Your task to perform on an android device: toggle show notifications on the lock screen Image 0: 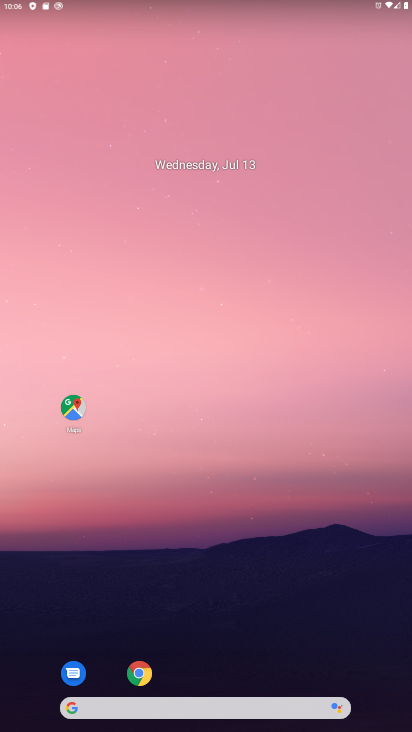
Step 0: drag from (161, 693) to (224, 187)
Your task to perform on an android device: toggle show notifications on the lock screen Image 1: 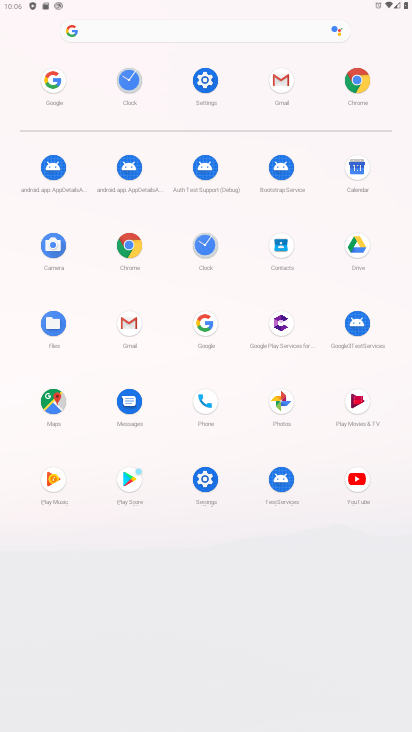
Step 1: click (208, 82)
Your task to perform on an android device: toggle show notifications on the lock screen Image 2: 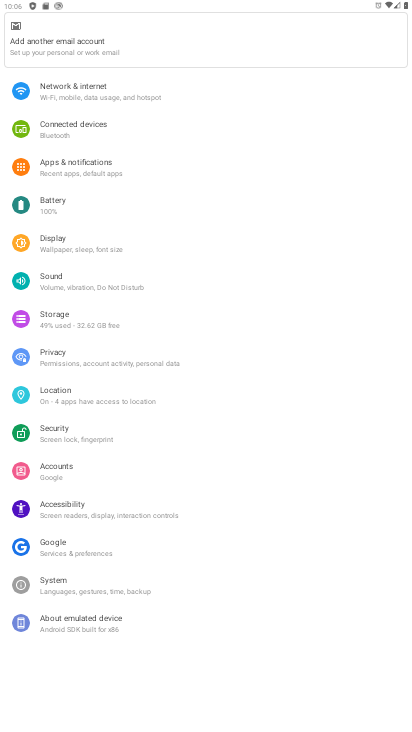
Step 2: click (49, 354)
Your task to perform on an android device: toggle show notifications on the lock screen Image 3: 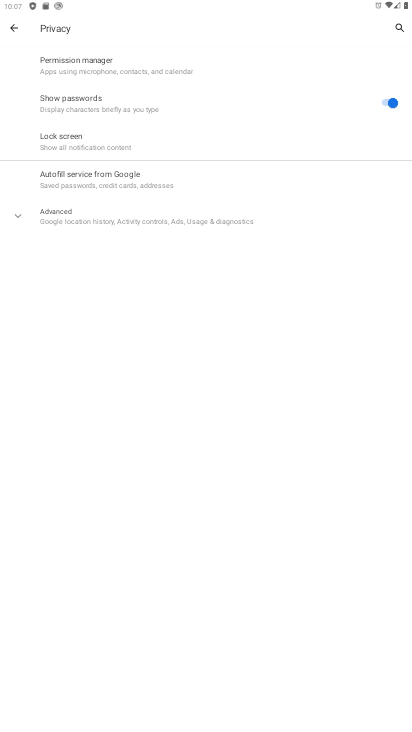
Step 3: click (58, 149)
Your task to perform on an android device: toggle show notifications on the lock screen Image 4: 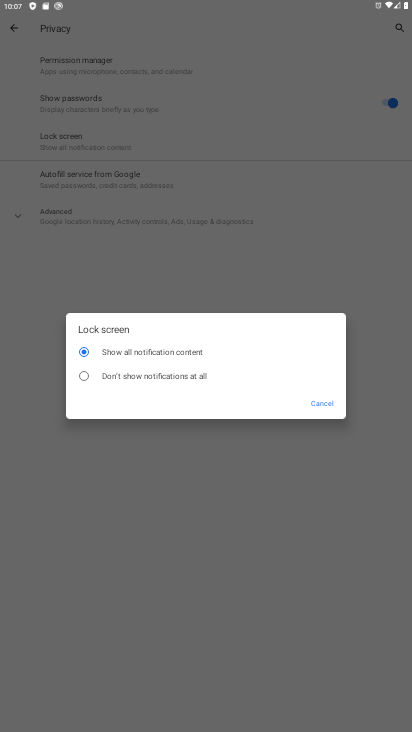
Step 4: click (111, 379)
Your task to perform on an android device: toggle show notifications on the lock screen Image 5: 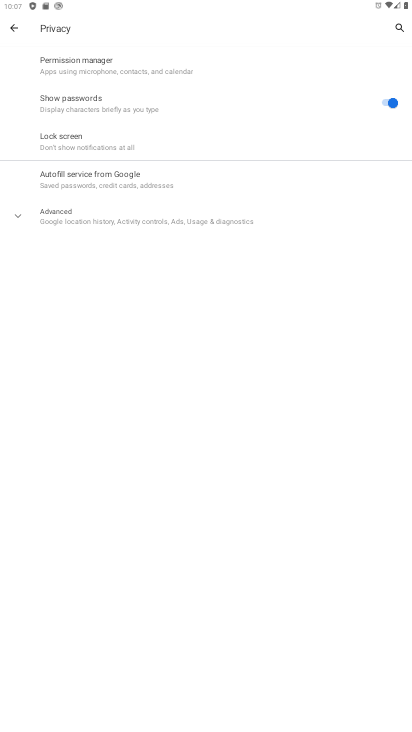
Step 5: task complete